Your task to perform on an android device: open chrome and create a bookmark for the current page Image 0: 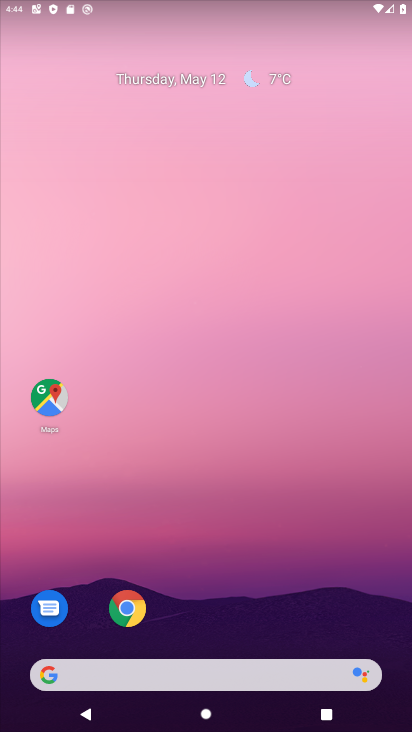
Step 0: click (140, 611)
Your task to perform on an android device: open chrome and create a bookmark for the current page Image 1: 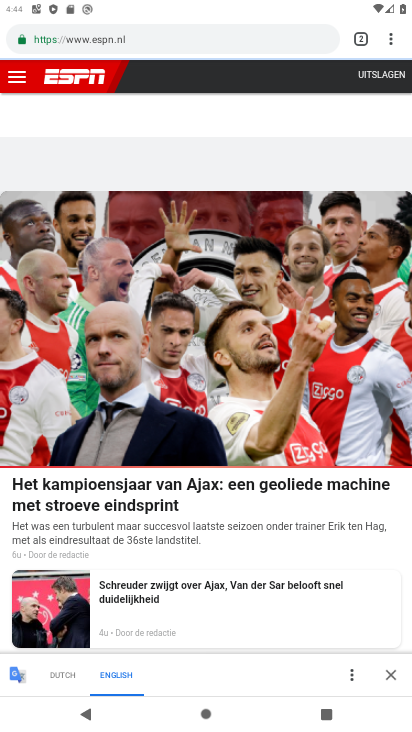
Step 1: click (397, 37)
Your task to perform on an android device: open chrome and create a bookmark for the current page Image 2: 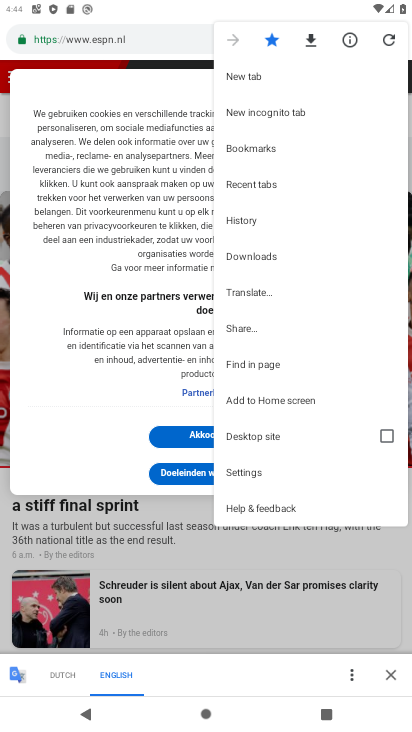
Step 2: task complete